Your task to perform on an android device: Add "asus zenbook" to the cart on costco, then select checkout. Image 0: 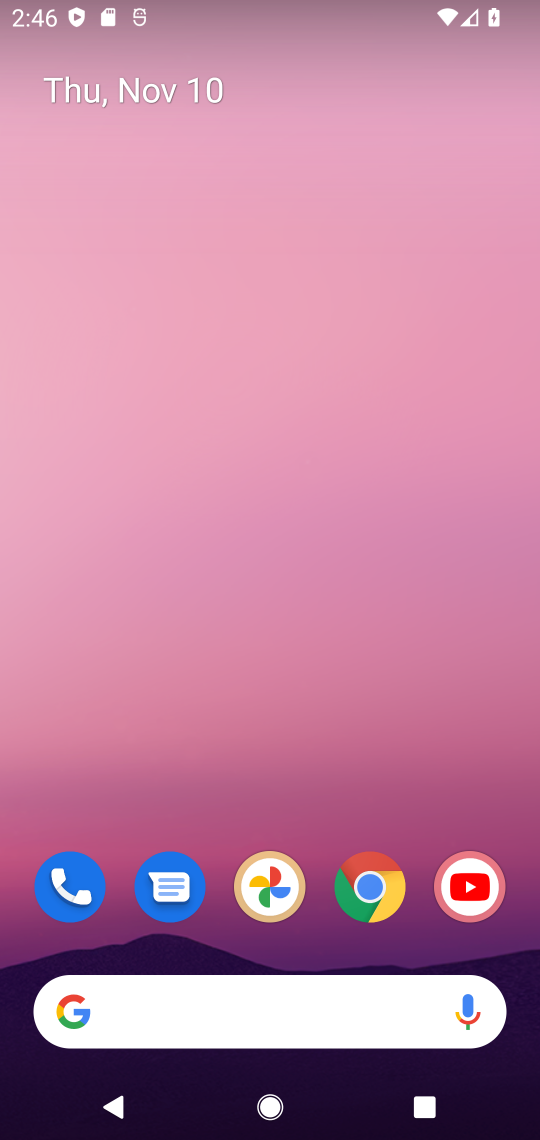
Step 0: drag from (350, 682) to (341, 6)
Your task to perform on an android device: Add "asus zenbook" to the cart on costco, then select checkout. Image 1: 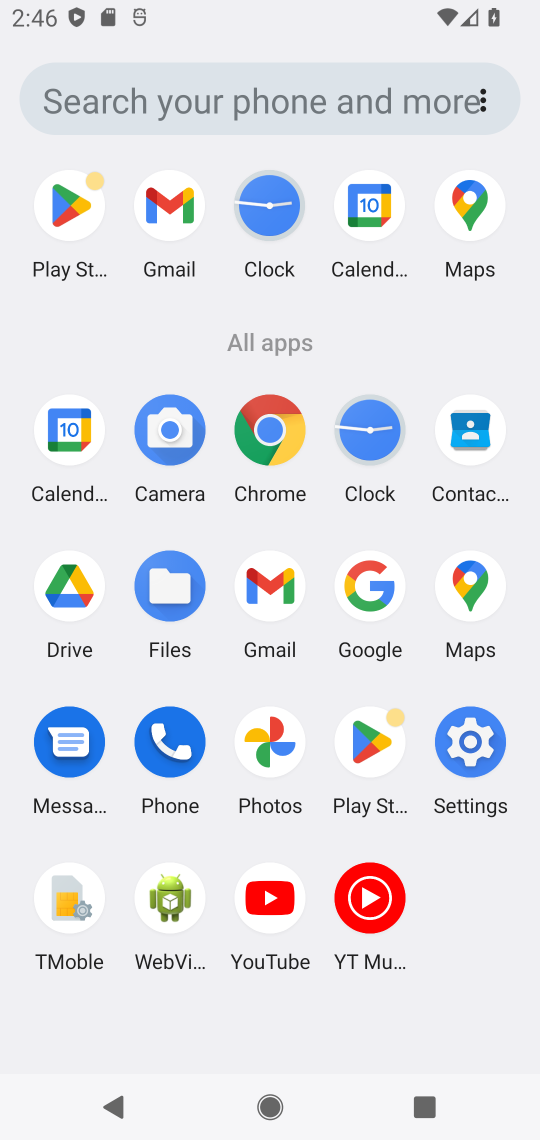
Step 1: click (265, 439)
Your task to perform on an android device: Add "asus zenbook" to the cart on costco, then select checkout. Image 2: 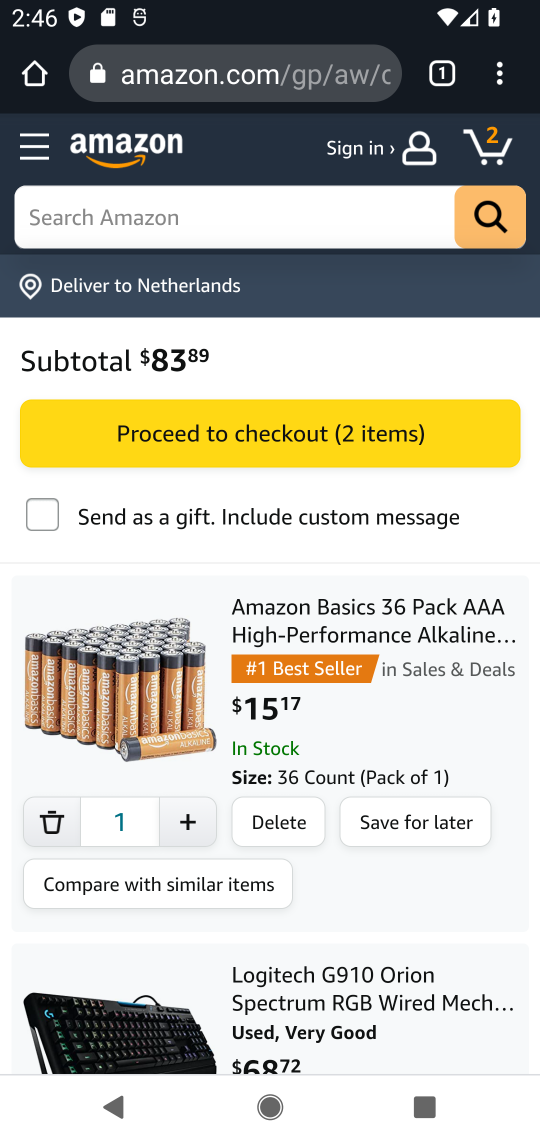
Step 2: click (290, 86)
Your task to perform on an android device: Add "asus zenbook" to the cart on costco, then select checkout. Image 3: 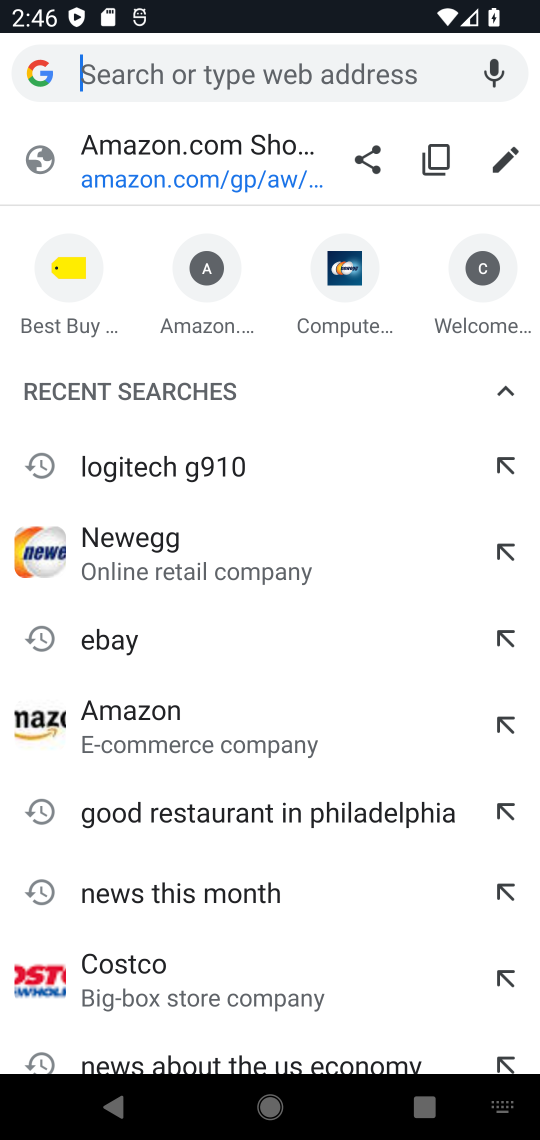
Step 3: type "costco.com"
Your task to perform on an android device: Add "asus zenbook" to the cart on costco, then select checkout. Image 4: 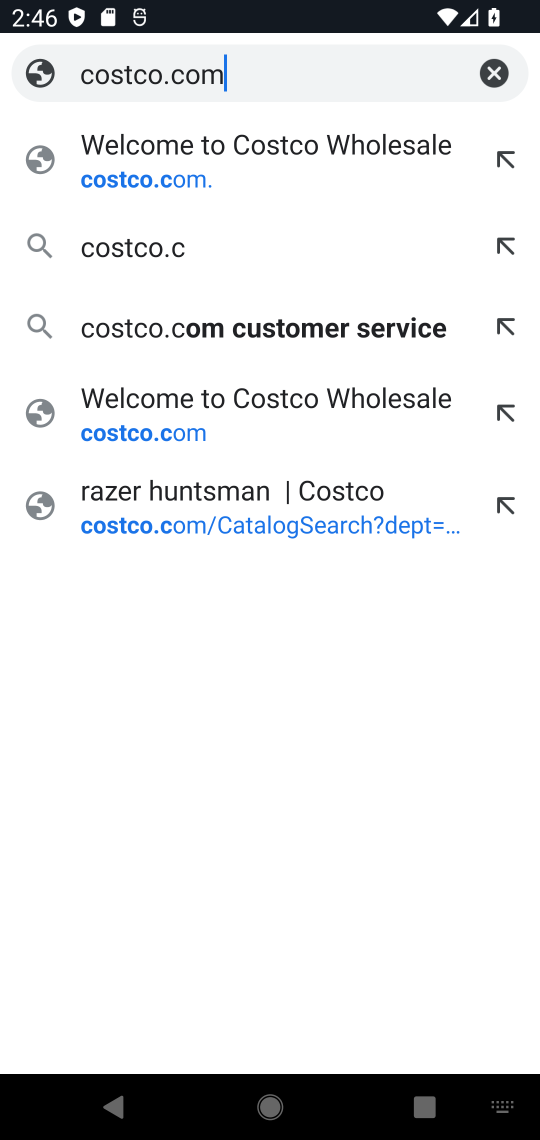
Step 4: press enter
Your task to perform on an android device: Add "asus zenbook" to the cart on costco, then select checkout. Image 5: 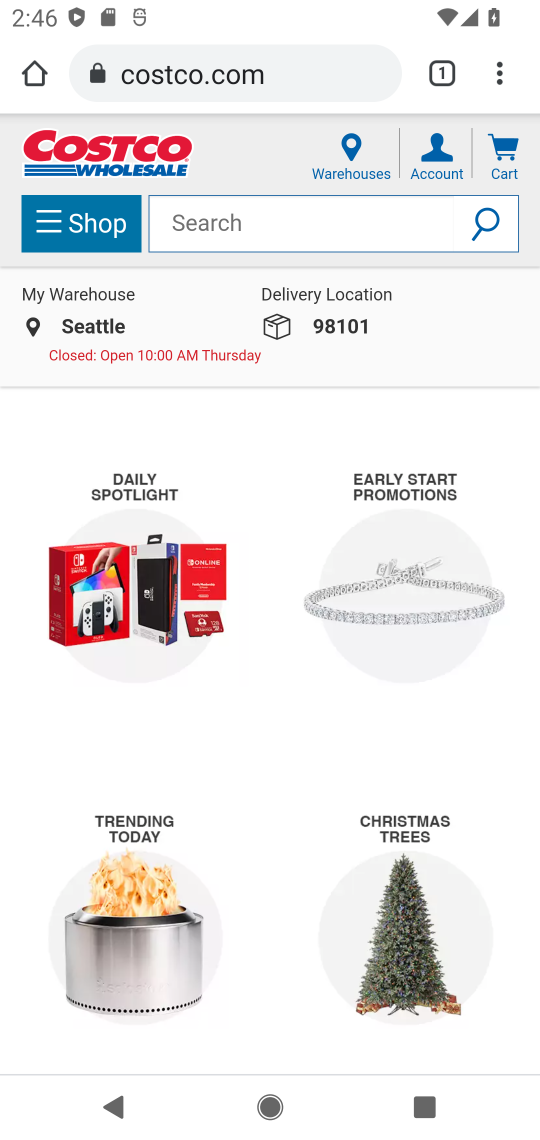
Step 5: click (295, 825)
Your task to perform on an android device: Add "asus zenbook" to the cart on costco, then select checkout. Image 6: 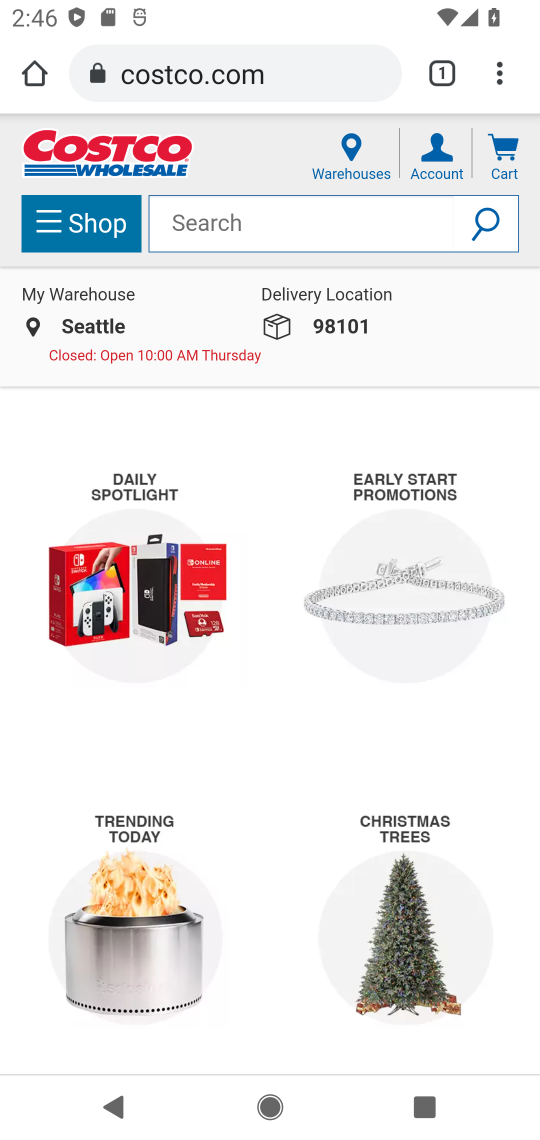
Step 6: click (292, 216)
Your task to perform on an android device: Add "asus zenbook" to the cart on costco, then select checkout. Image 7: 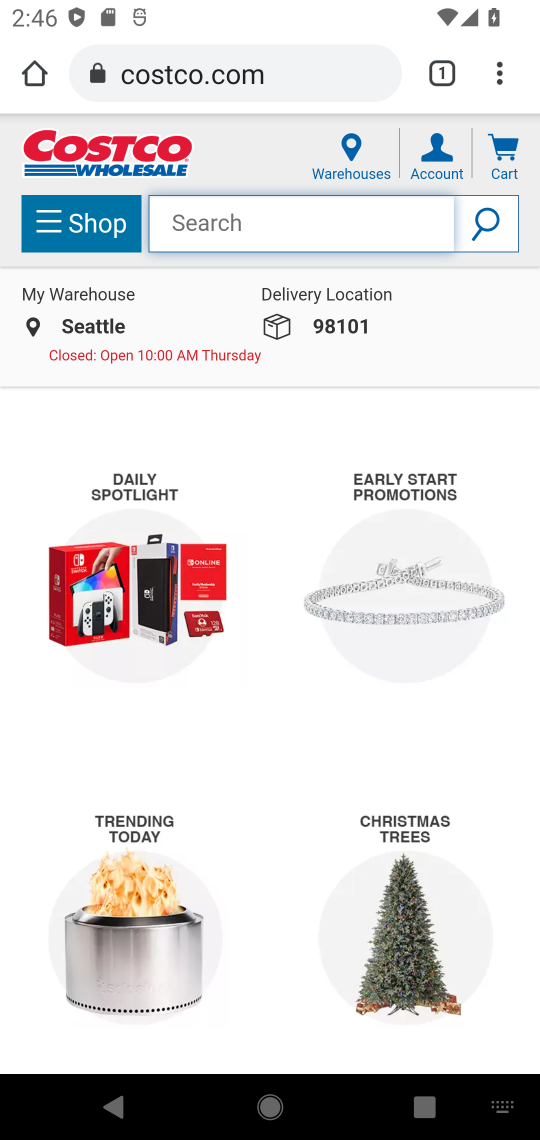
Step 7: type "asus zenbook"
Your task to perform on an android device: Add "asus zenbook" to the cart on costco, then select checkout. Image 8: 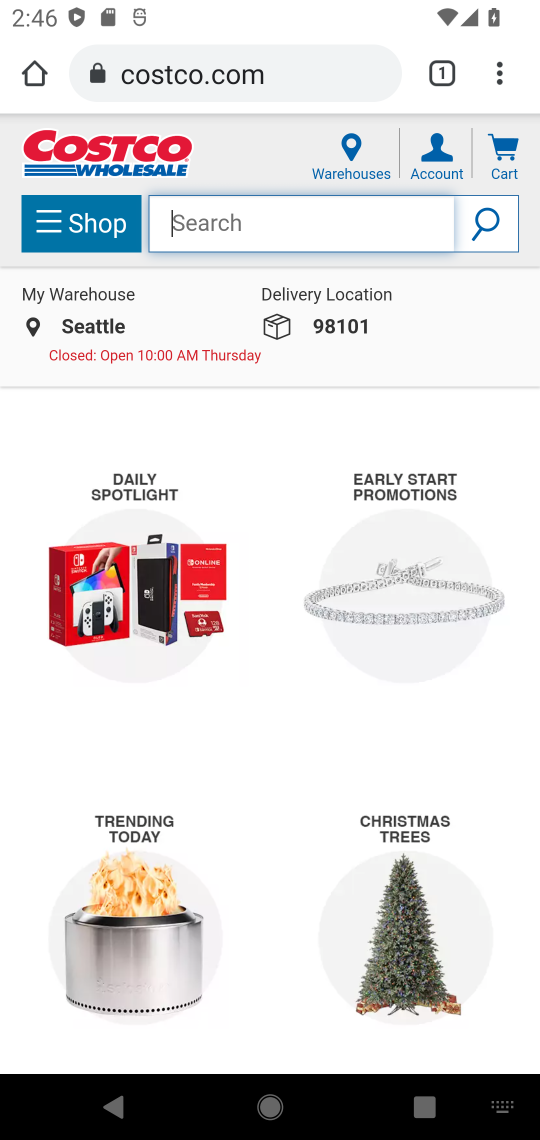
Step 8: press enter
Your task to perform on an android device: Add "asus zenbook" to the cart on costco, then select checkout. Image 9: 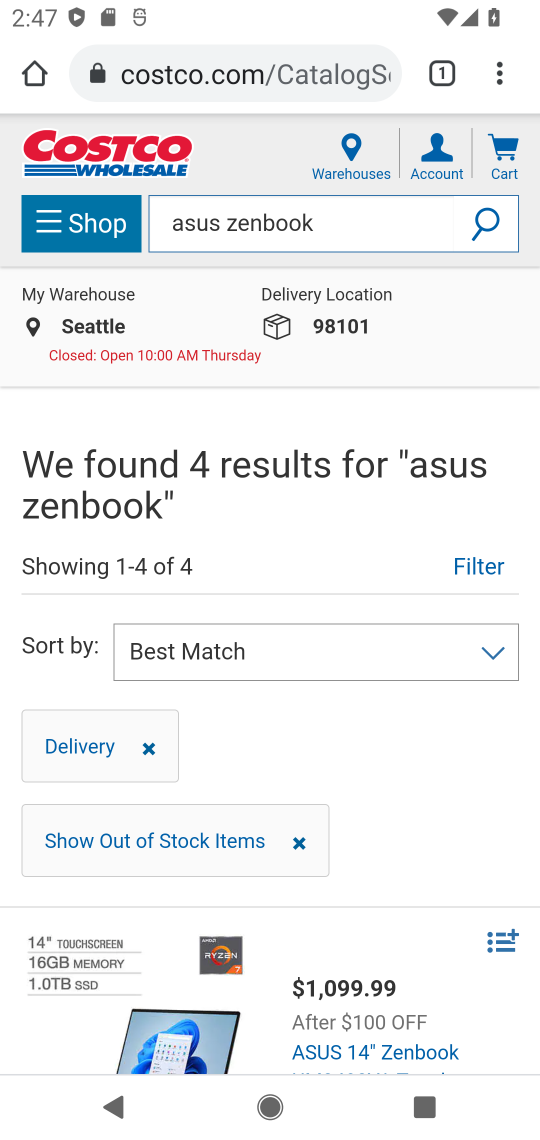
Step 9: drag from (208, 1008) to (204, 491)
Your task to perform on an android device: Add "asus zenbook" to the cart on costco, then select checkout. Image 10: 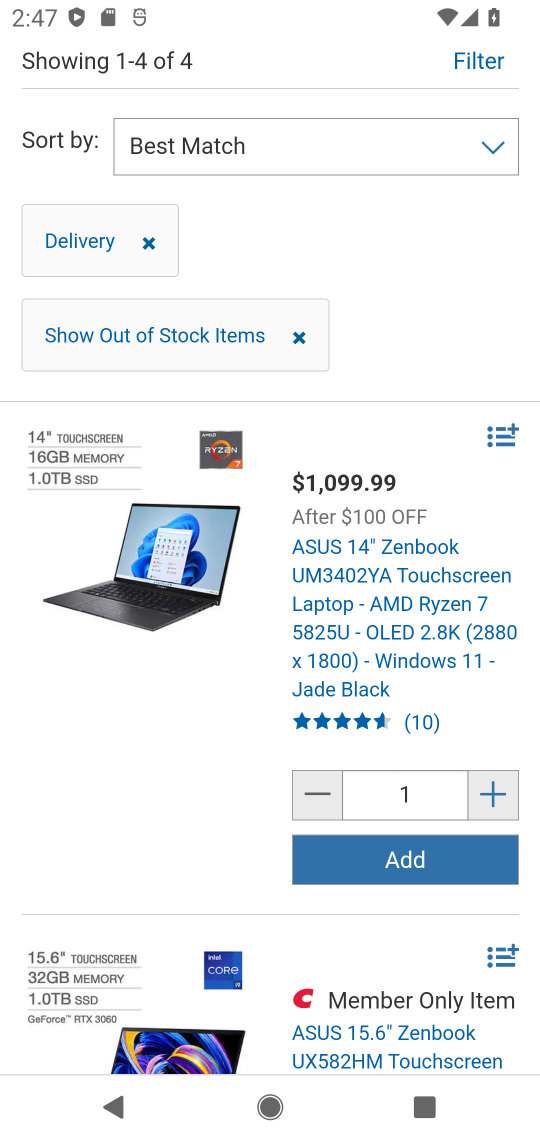
Step 10: click (404, 871)
Your task to perform on an android device: Add "asus zenbook" to the cart on costco, then select checkout. Image 11: 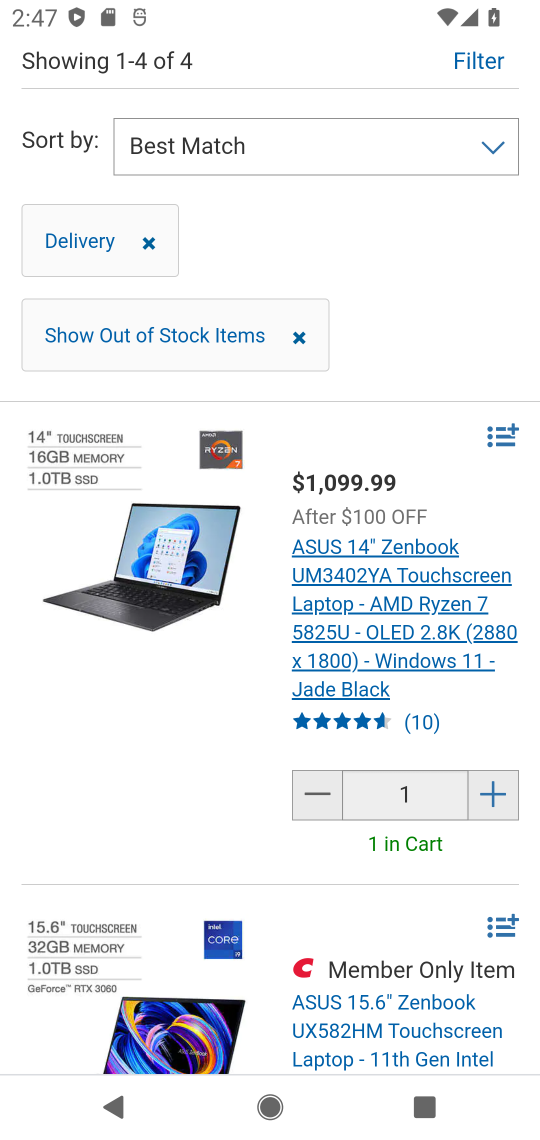
Step 11: drag from (446, 178) to (415, 730)
Your task to perform on an android device: Add "asus zenbook" to the cart on costco, then select checkout. Image 12: 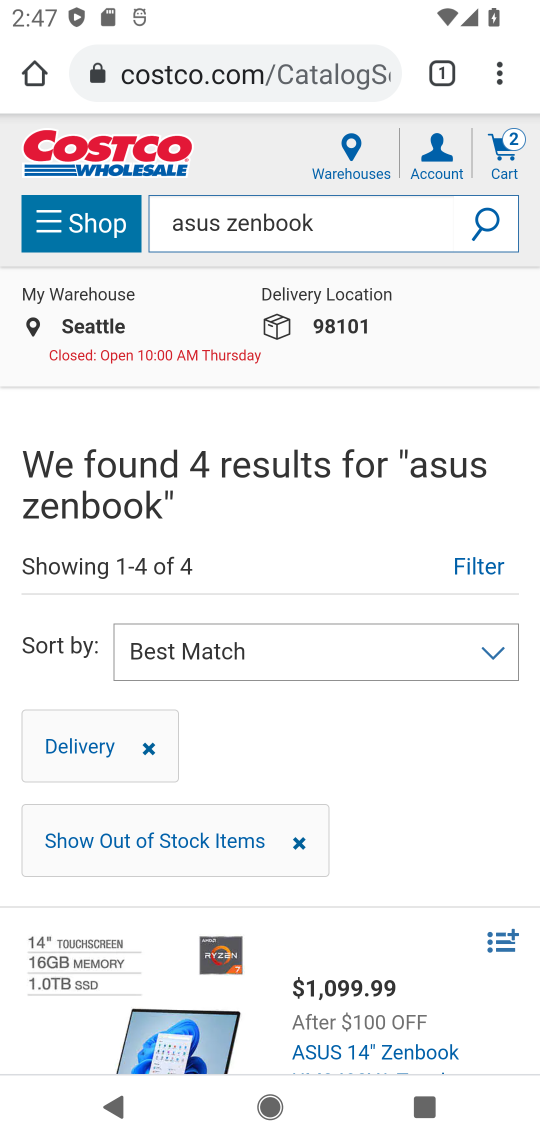
Step 12: click (505, 137)
Your task to perform on an android device: Add "asus zenbook" to the cart on costco, then select checkout. Image 13: 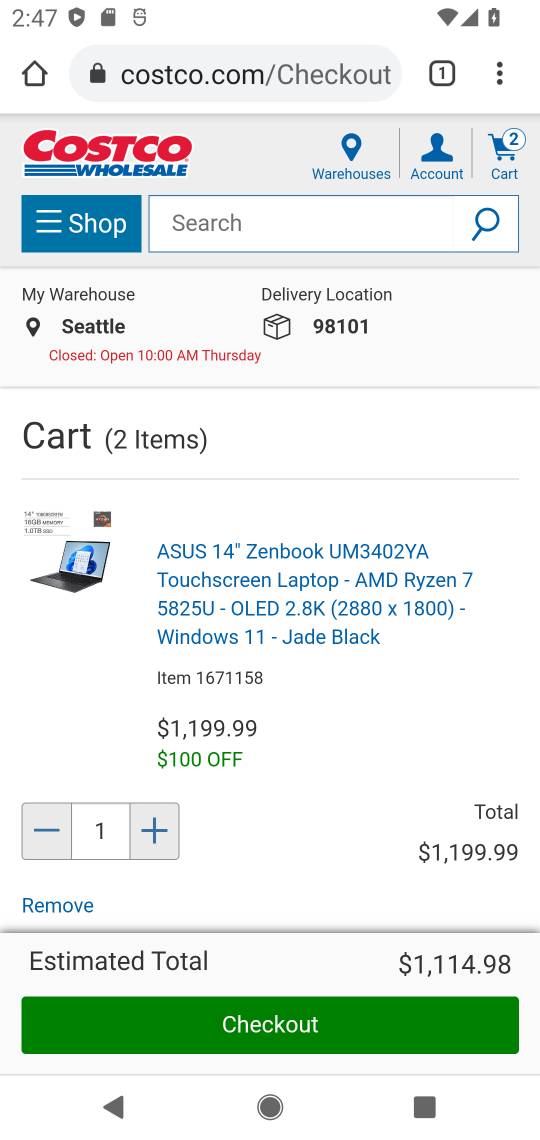
Step 13: task complete